Your task to perform on an android device: Go to notification settings Image 0: 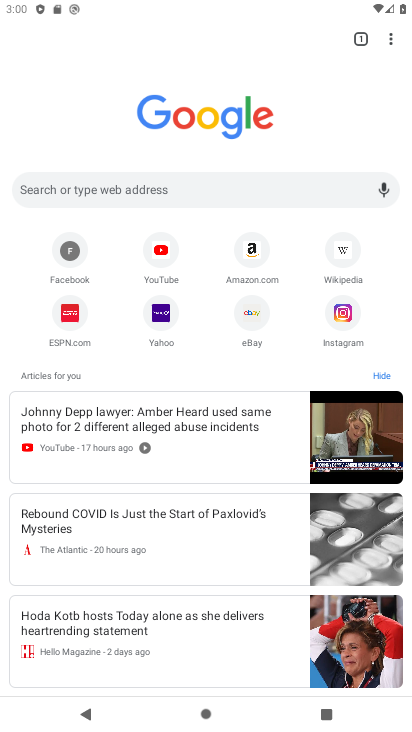
Step 0: press home button
Your task to perform on an android device: Go to notification settings Image 1: 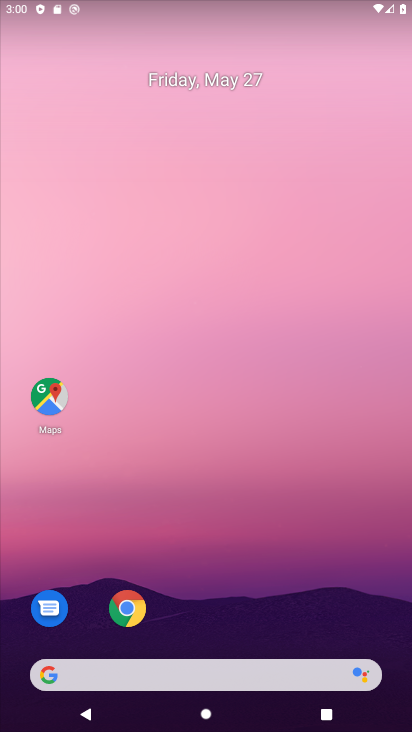
Step 1: drag from (185, 629) to (300, 70)
Your task to perform on an android device: Go to notification settings Image 2: 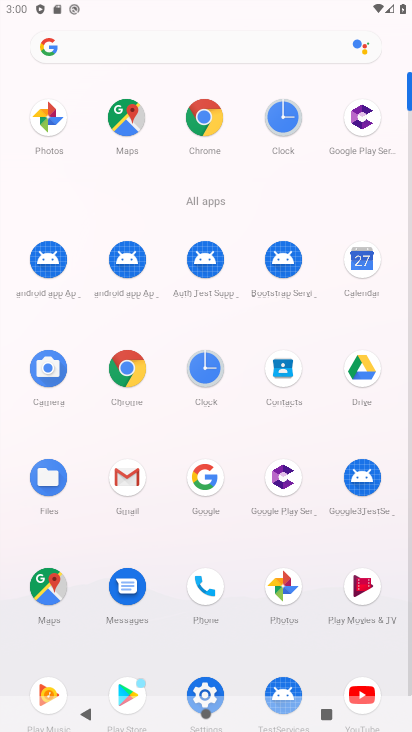
Step 2: drag from (153, 553) to (230, 312)
Your task to perform on an android device: Go to notification settings Image 3: 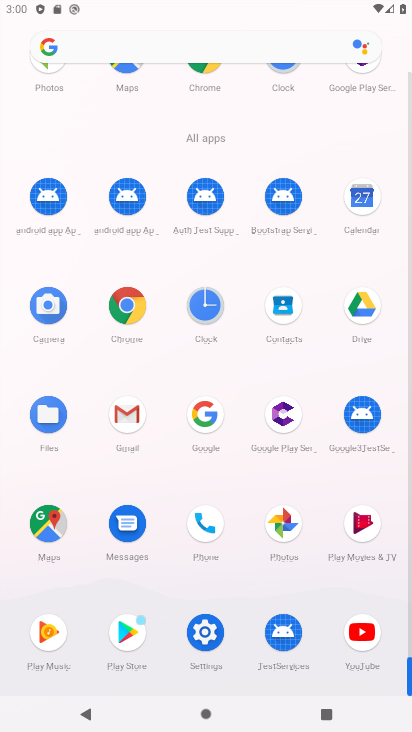
Step 3: click (213, 646)
Your task to perform on an android device: Go to notification settings Image 4: 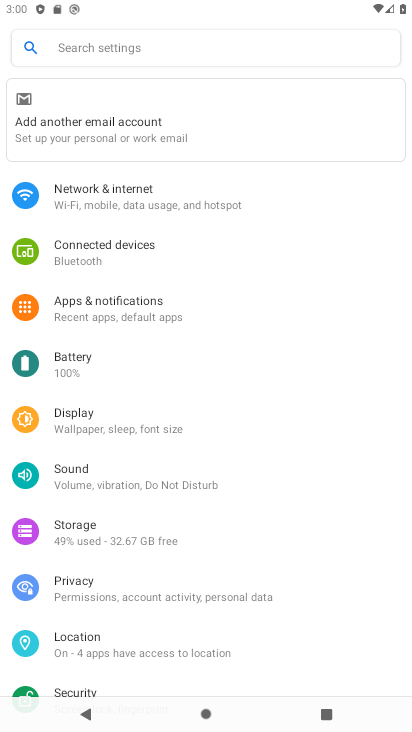
Step 4: click (153, 319)
Your task to perform on an android device: Go to notification settings Image 5: 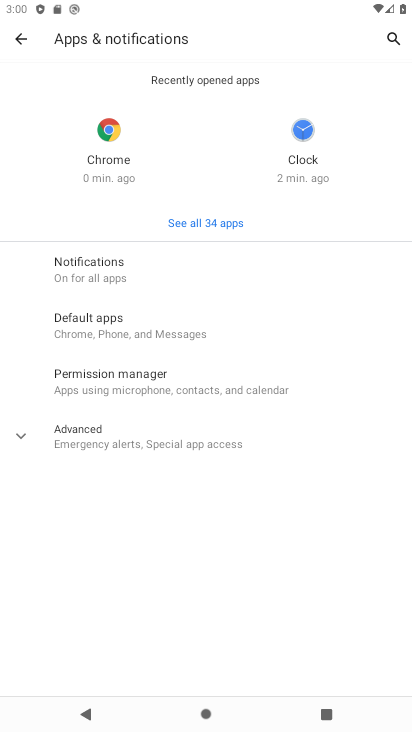
Step 5: click (156, 269)
Your task to perform on an android device: Go to notification settings Image 6: 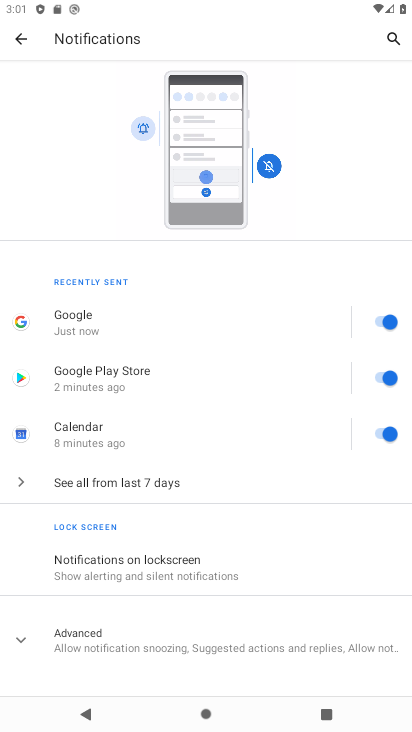
Step 6: task complete